Your task to perform on an android device: open the mobile data screen to see how much data has been used Image 0: 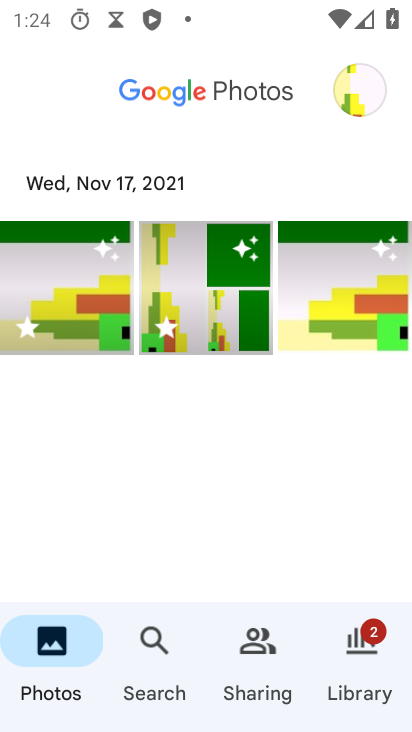
Step 0: press home button
Your task to perform on an android device: open the mobile data screen to see how much data has been used Image 1: 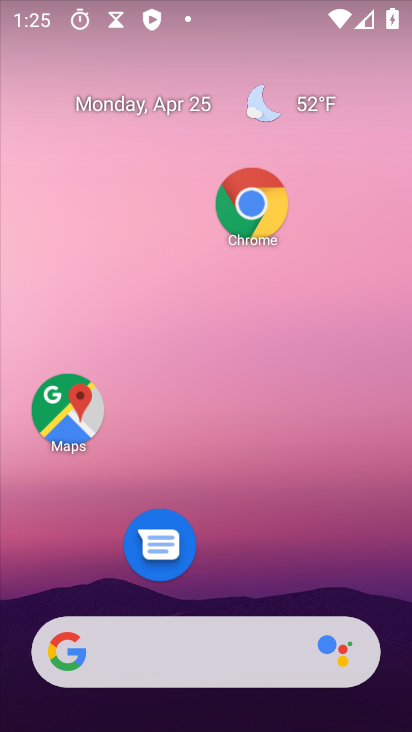
Step 1: drag from (283, 678) to (287, 220)
Your task to perform on an android device: open the mobile data screen to see how much data has been used Image 2: 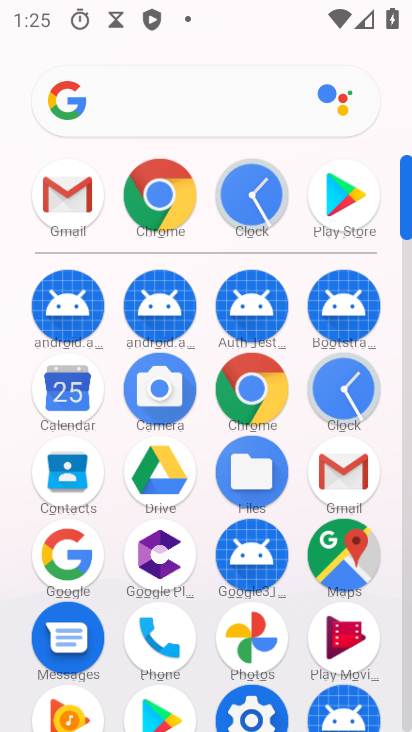
Step 2: click (245, 692)
Your task to perform on an android device: open the mobile data screen to see how much data has been used Image 3: 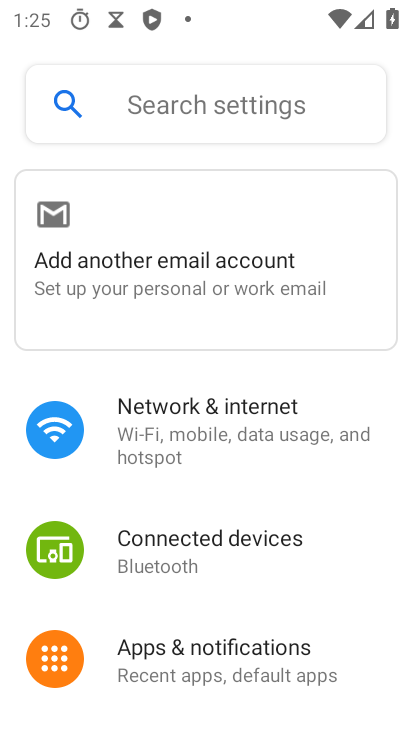
Step 3: click (178, 115)
Your task to perform on an android device: open the mobile data screen to see how much data has been used Image 4: 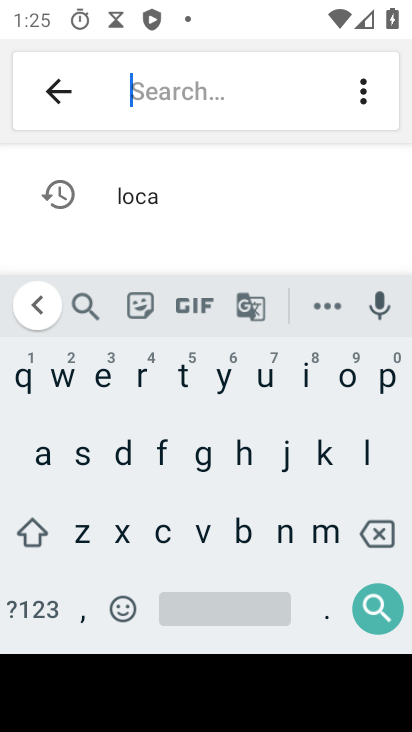
Step 4: click (119, 456)
Your task to perform on an android device: open the mobile data screen to see how much data has been used Image 5: 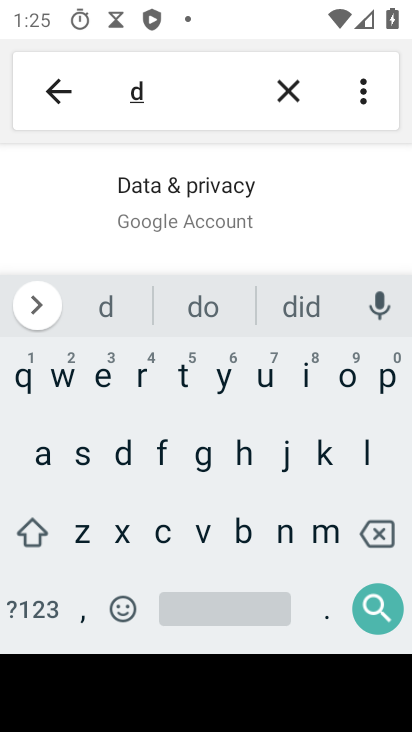
Step 5: click (42, 449)
Your task to perform on an android device: open the mobile data screen to see how much data has been used Image 6: 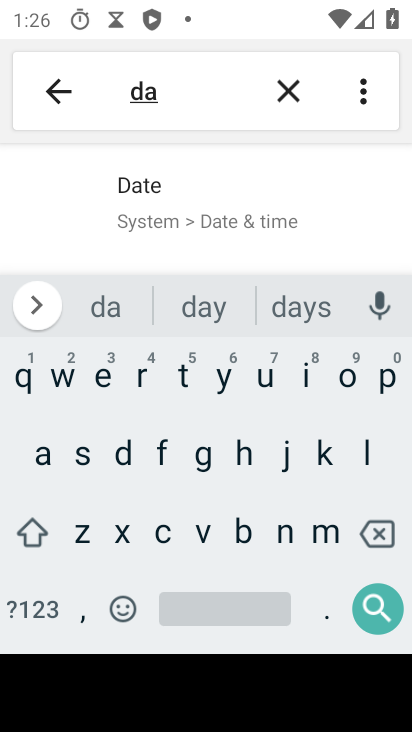
Step 6: click (178, 378)
Your task to perform on an android device: open the mobile data screen to see how much data has been used Image 7: 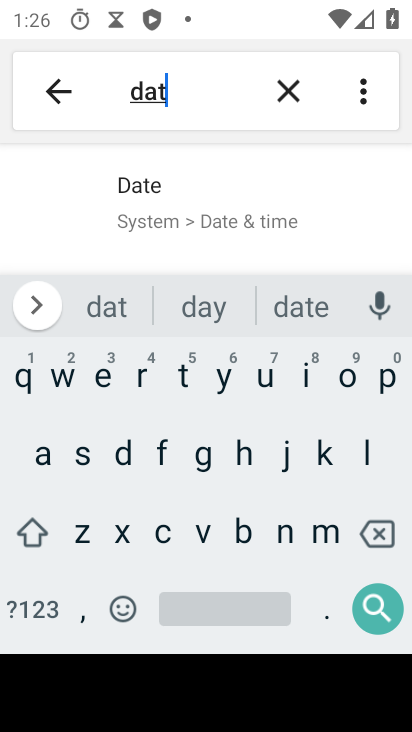
Step 7: click (48, 452)
Your task to perform on an android device: open the mobile data screen to see how much data has been used Image 8: 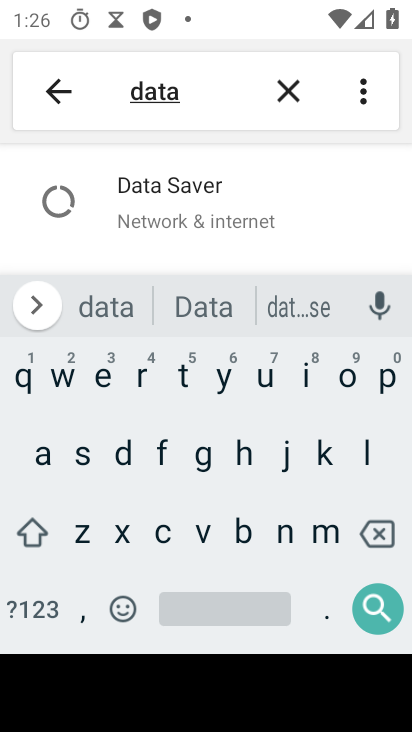
Step 8: click (203, 604)
Your task to perform on an android device: open the mobile data screen to see how much data has been used Image 9: 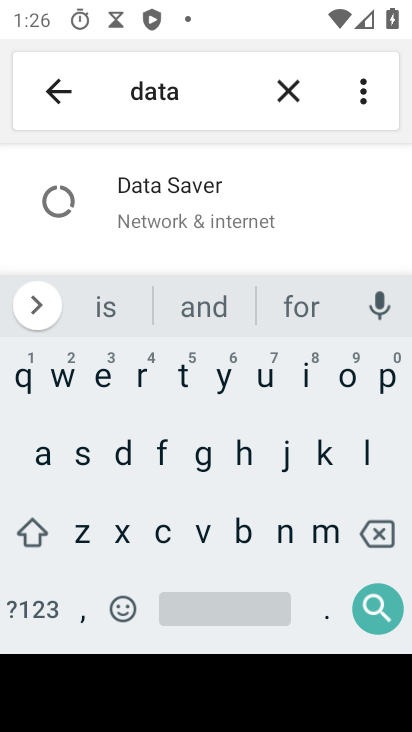
Step 9: click (259, 381)
Your task to perform on an android device: open the mobile data screen to see how much data has been used Image 10: 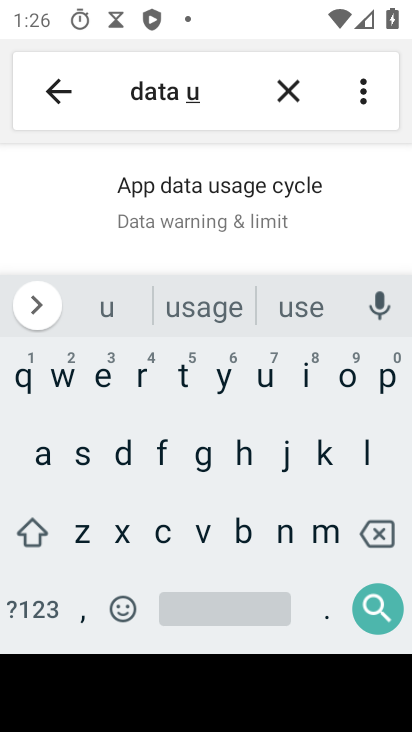
Step 10: drag from (202, 257) to (250, 171)
Your task to perform on an android device: open the mobile data screen to see how much data has been used Image 11: 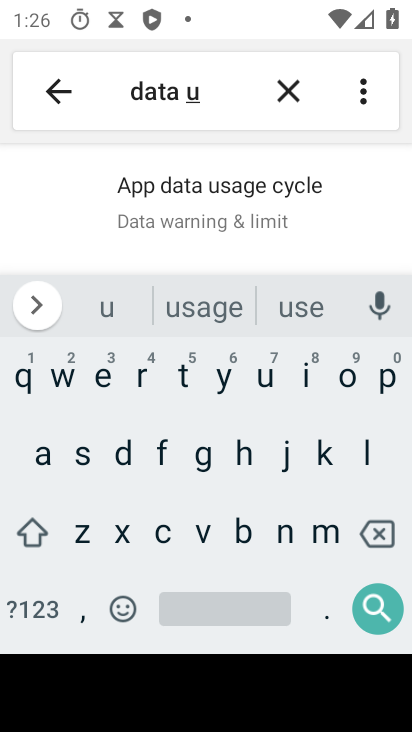
Step 11: press back button
Your task to perform on an android device: open the mobile data screen to see how much data has been used Image 12: 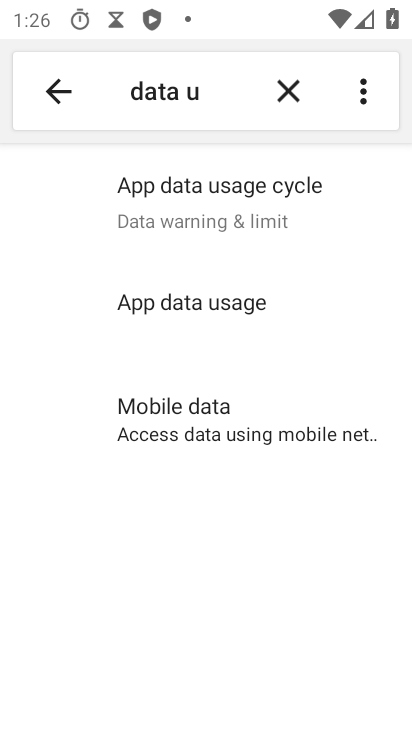
Step 12: click (178, 287)
Your task to perform on an android device: open the mobile data screen to see how much data has been used Image 13: 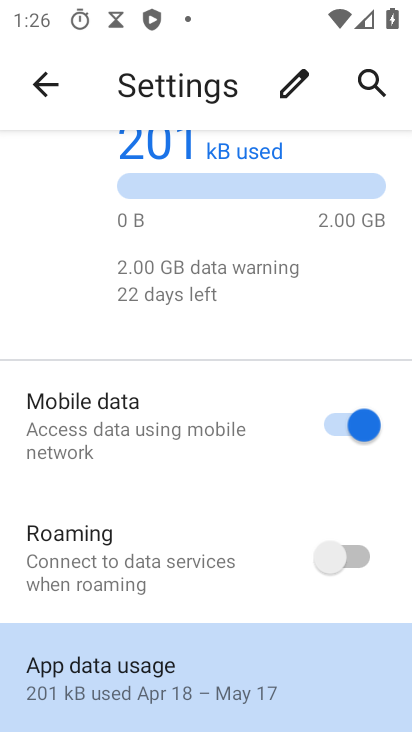
Step 13: click (114, 669)
Your task to perform on an android device: open the mobile data screen to see how much data has been used Image 14: 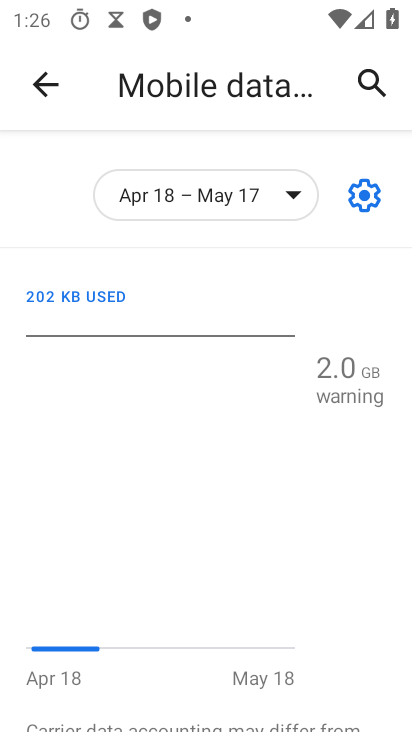
Step 14: task complete